Your task to perform on an android device: toggle pop-ups in chrome Image 0: 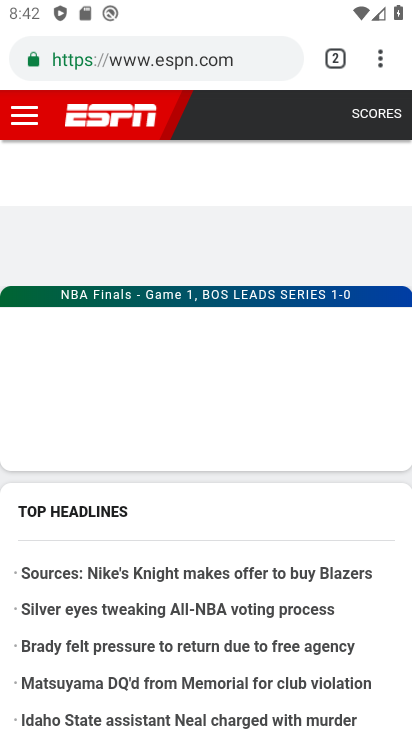
Step 0: click (378, 57)
Your task to perform on an android device: toggle pop-ups in chrome Image 1: 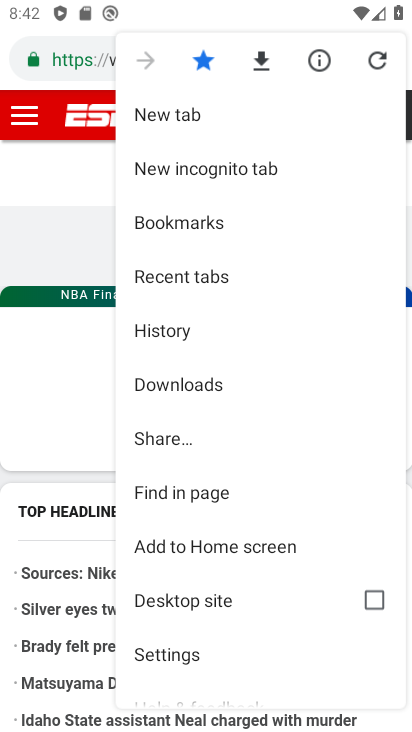
Step 1: click (186, 657)
Your task to perform on an android device: toggle pop-ups in chrome Image 2: 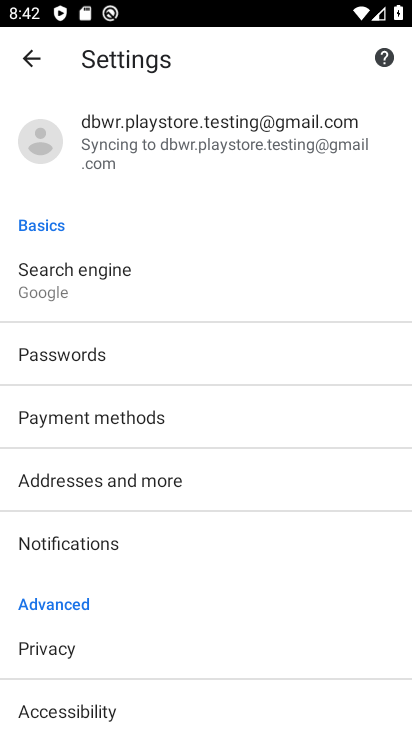
Step 2: drag from (159, 691) to (207, 227)
Your task to perform on an android device: toggle pop-ups in chrome Image 3: 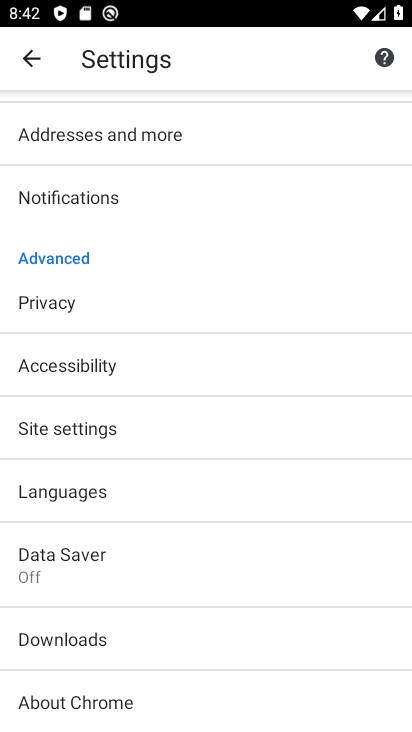
Step 3: click (137, 434)
Your task to perform on an android device: toggle pop-ups in chrome Image 4: 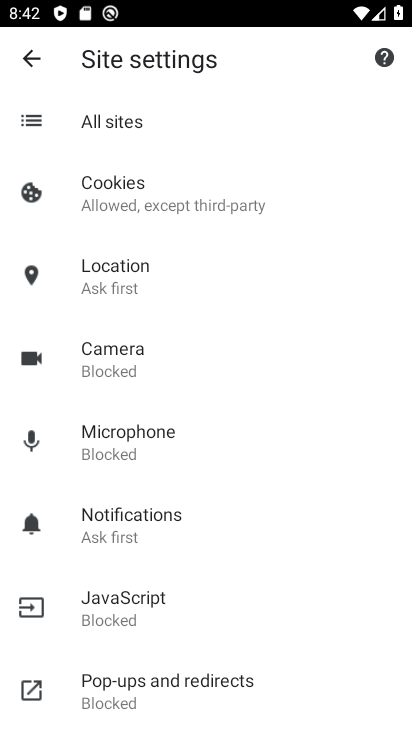
Step 4: click (141, 695)
Your task to perform on an android device: toggle pop-ups in chrome Image 5: 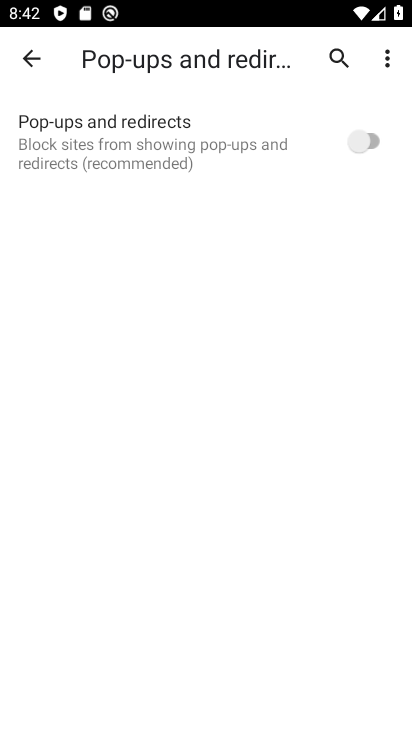
Step 5: click (356, 146)
Your task to perform on an android device: toggle pop-ups in chrome Image 6: 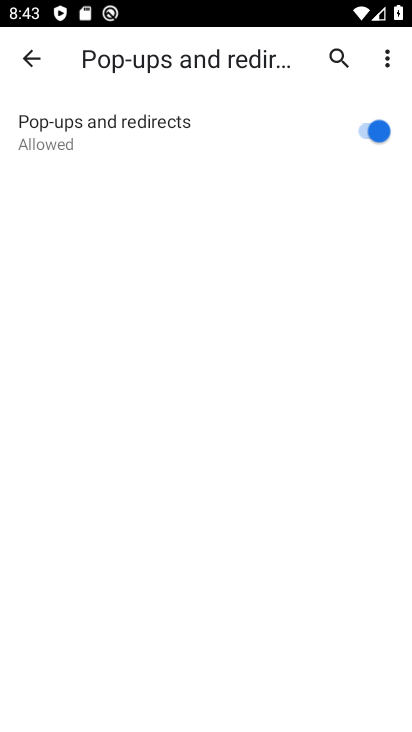
Step 6: task complete